Your task to perform on an android device: Clear the shopping cart on ebay. Search for "alienware aurora" on ebay, select the first entry, and add it to the cart. Image 0: 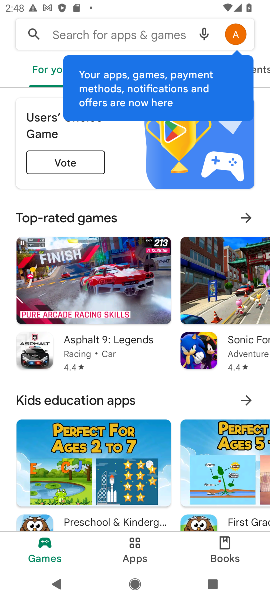
Step 0: press home button
Your task to perform on an android device: Clear the shopping cart on ebay. Search for "alienware aurora" on ebay, select the first entry, and add it to the cart. Image 1: 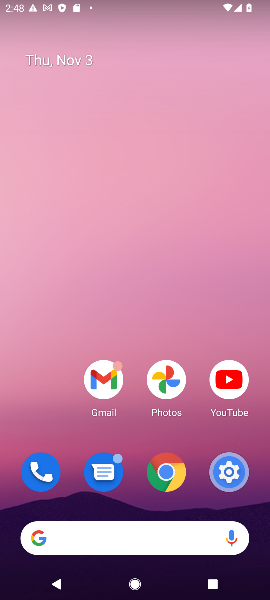
Step 1: click (184, 539)
Your task to perform on an android device: Clear the shopping cart on ebay. Search for "alienware aurora" on ebay, select the first entry, and add it to the cart. Image 2: 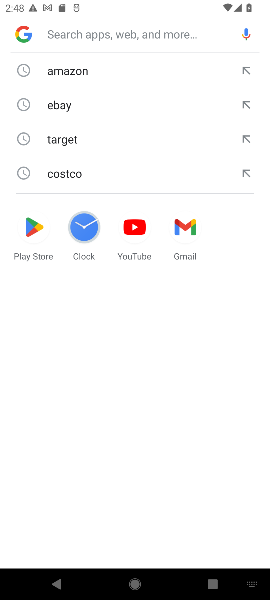
Step 2: type "ebay.com"
Your task to perform on an android device: Clear the shopping cart on ebay. Search for "alienware aurora" on ebay, select the first entry, and add it to the cart. Image 3: 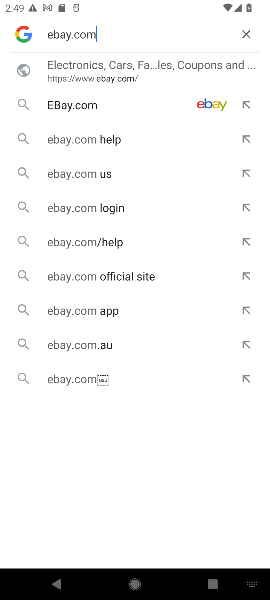
Step 3: click (121, 112)
Your task to perform on an android device: Clear the shopping cart on ebay. Search for "alienware aurora" on ebay, select the first entry, and add it to the cart. Image 4: 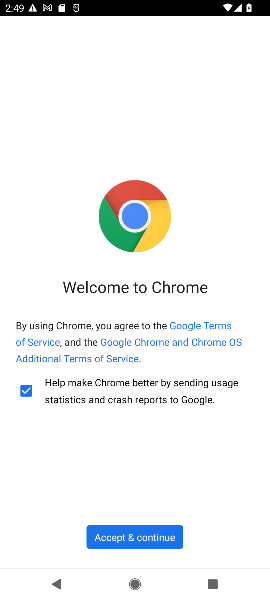
Step 4: click (118, 530)
Your task to perform on an android device: Clear the shopping cart on ebay. Search for "alienware aurora" on ebay, select the first entry, and add it to the cart. Image 5: 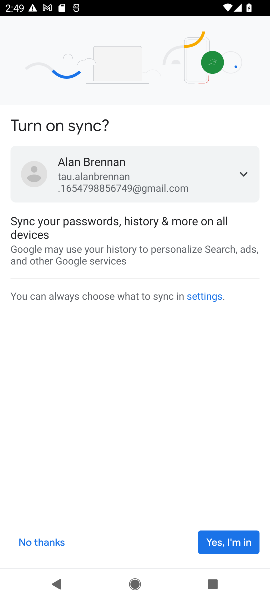
Step 5: click (238, 545)
Your task to perform on an android device: Clear the shopping cart on ebay. Search for "alienware aurora" on ebay, select the first entry, and add it to the cart. Image 6: 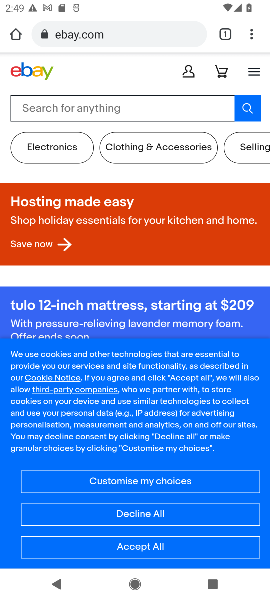
Step 6: click (109, 105)
Your task to perform on an android device: Clear the shopping cart on ebay. Search for "alienware aurora" on ebay, select the first entry, and add it to the cart. Image 7: 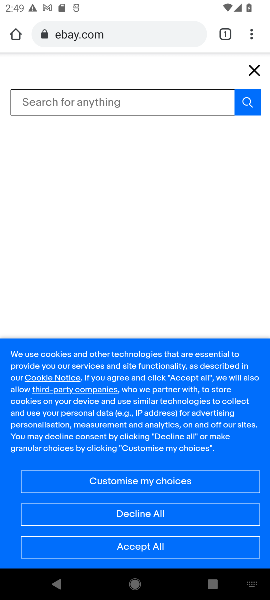
Step 7: type "alienware aurora"
Your task to perform on an android device: Clear the shopping cart on ebay. Search for "alienware aurora" on ebay, select the first entry, and add it to the cart. Image 8: 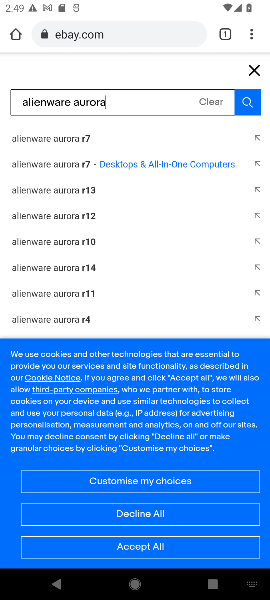
Step 8: click (54, 137)
Your task to perform on an android device: Clear the shopping cart on ebay. Search for "alienware aurora" on ebay, select the first entry, and add it to the cart. Image 9: 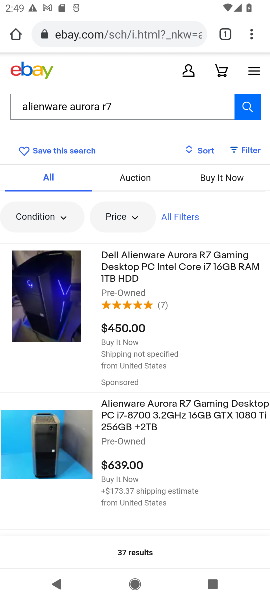
Step 9: click (136, 264)
Your task to perform on an android device: Clear the shopping cart on ebay. Search for "alienware aurora" on ebay, select the first entry, and add it to the cart. Image 10: 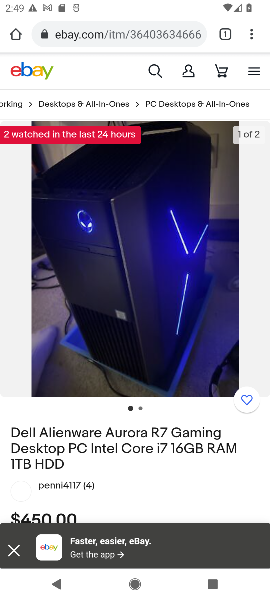
Step 10: drag from (147, 515) to (150, 173)
Your task to perform on an android device: Clear the shopping cart on ebay. Search for "alienware aurora" on ebay, select the first entry, and add it to the cart. Image 11: 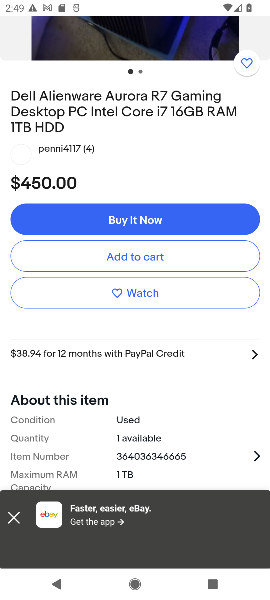
Step 11: click (178, 266)
Your task to perform on an android device: Clear the shopping cart on ebay. Search for "alienware aurora" on ebay, select the first entry, and add it to the cart. Image 12: 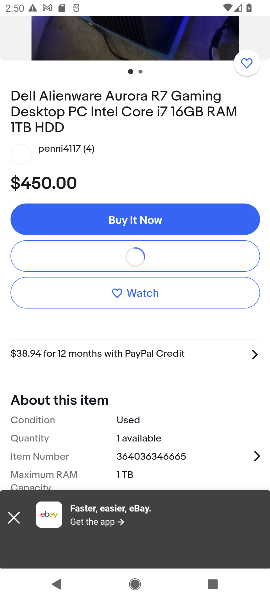
Step 12: task complete